Your task to perform on an android device: turn notification dots on Image 0: 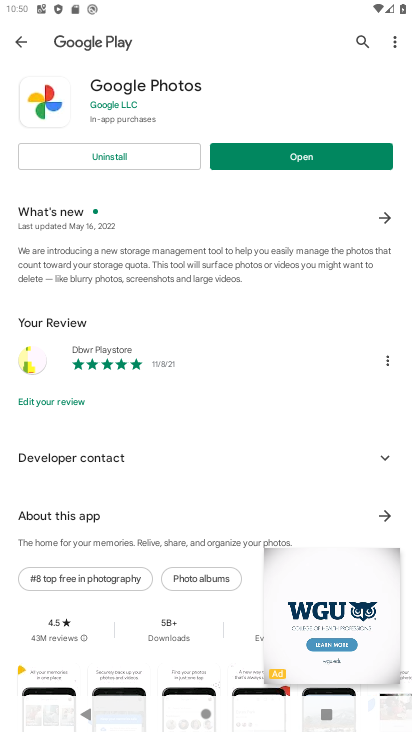
Step 0: press home button
Your task to perform on an android device: turn notification dots on Image 1: 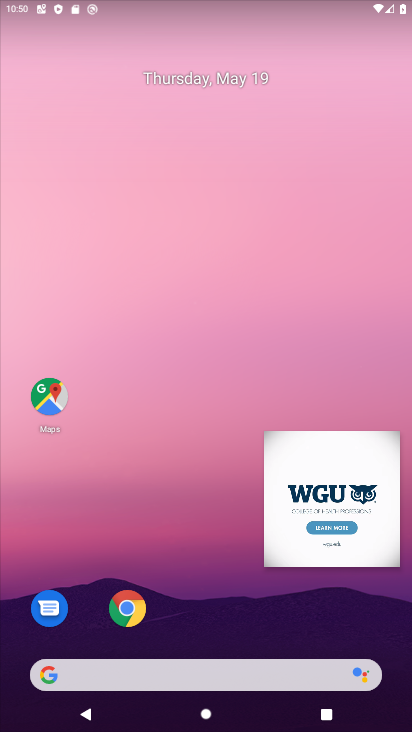
Step 1: click (365, 459)
Your task to perform on an android device: turn notification dots on Image 2: 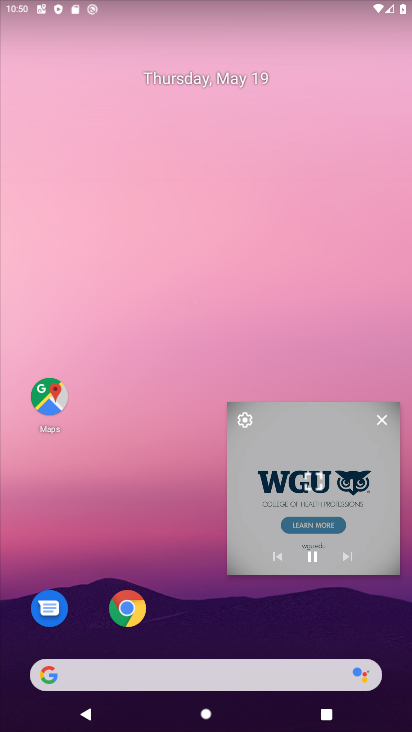
Step 2: click (378, 420)
Your task to perform on an android device: turn notification dots on Image 3: 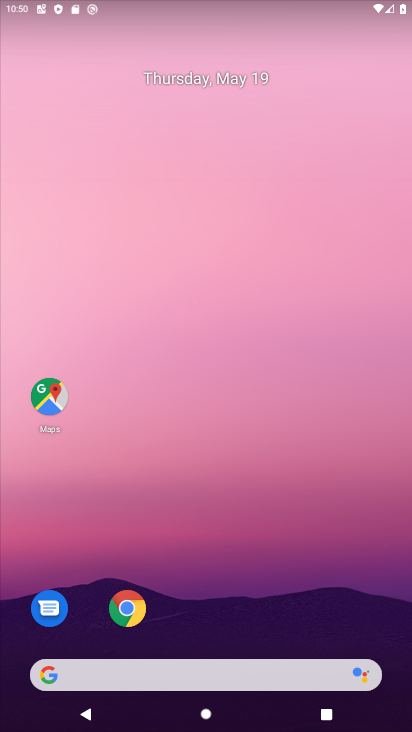
Step 3: drag from (410, 446) to (405, 673)
Your task to perform on an android device: turn notification dots on Image 4: 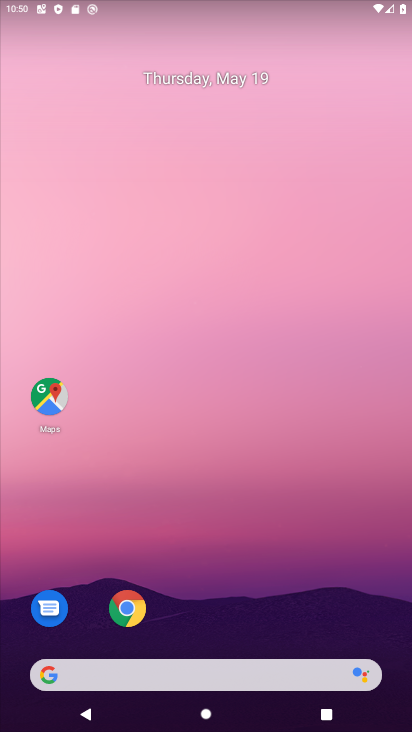
Step 4: drag from (396, 703) to (363, 340)
Your task to perform on an android device: turn notification dots on Image 5: 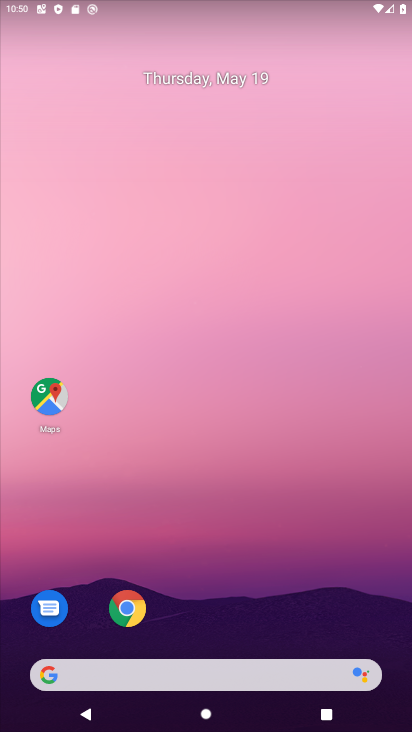
Step 5: drag from (388, 653) to (376, 324)
Your task to perform on an android device: turn notification dots on Image 6: 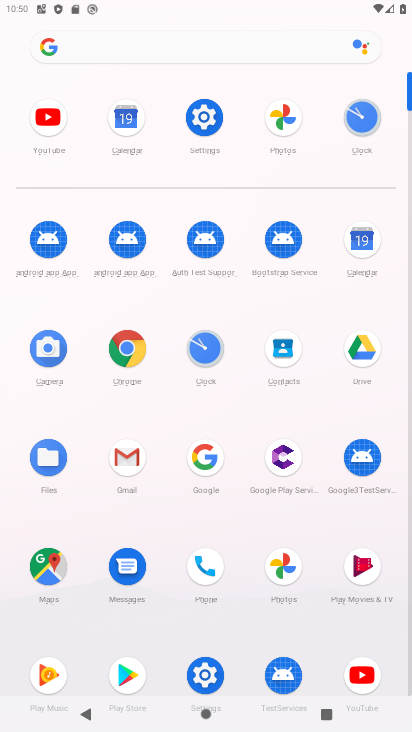
Step 6: click (196, 107)
Your task to perform on an android device: turn notification dots on Image 7: 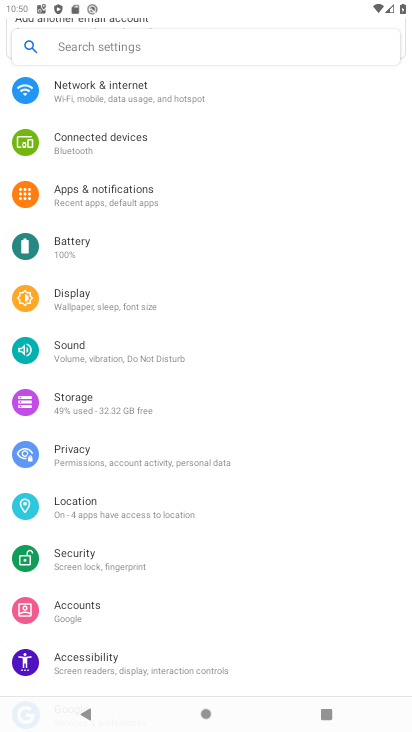
Step 7: click (84, 178)
Your task to perform on an android device: turn notification dots on Image 8: 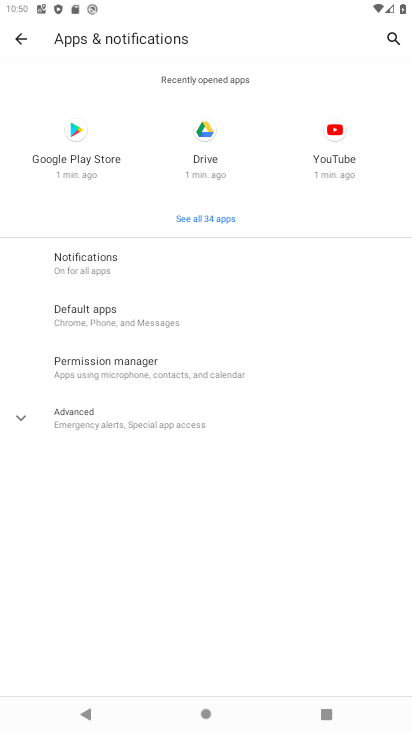
Step 8: click (90, 266)
Your task to perform on an android device: turn notification dots on Image 9: 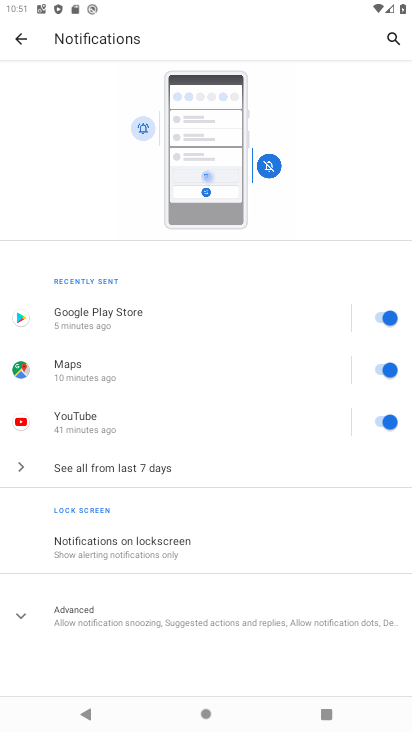
Step 9: drag from (261, 562) to (269, 254)
Your task to perform on an android device: turn notification dots on Image 10: 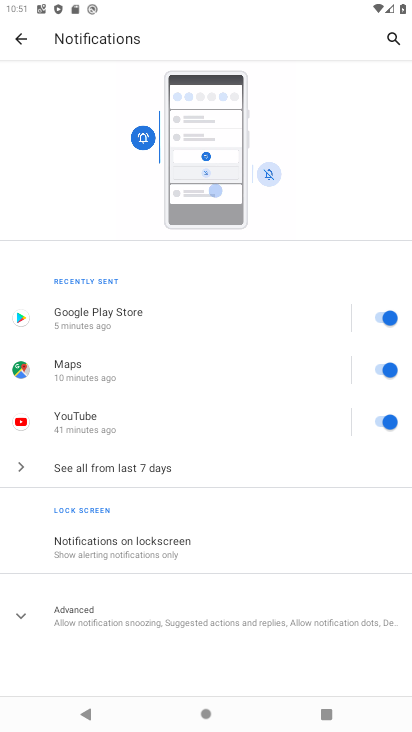
Step 10: click (24, 618)
Your task to perform on an android device: turn notification dots on Image 11: 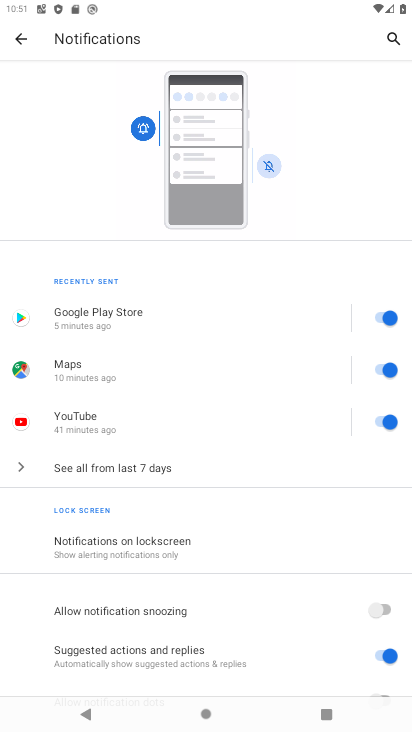
Step 11: drag from (240, 615) to (257, 414)
Your task to perform on an android device: turn notification dots on Image 12: 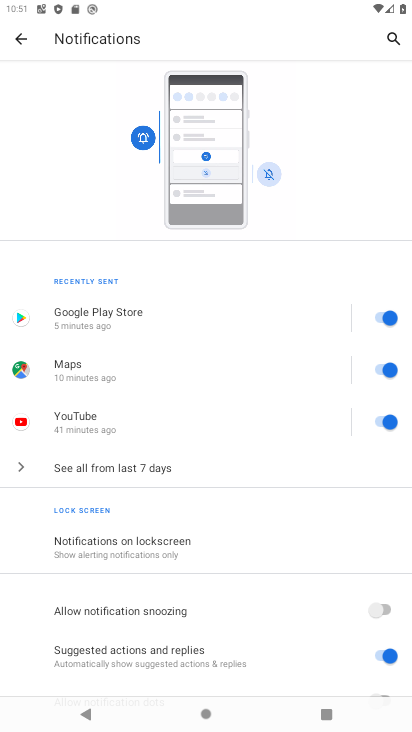
Step 12: drag from (264, 596) to (280, 436)
Your task to perform on an android device: turn notification dots on Image 13: 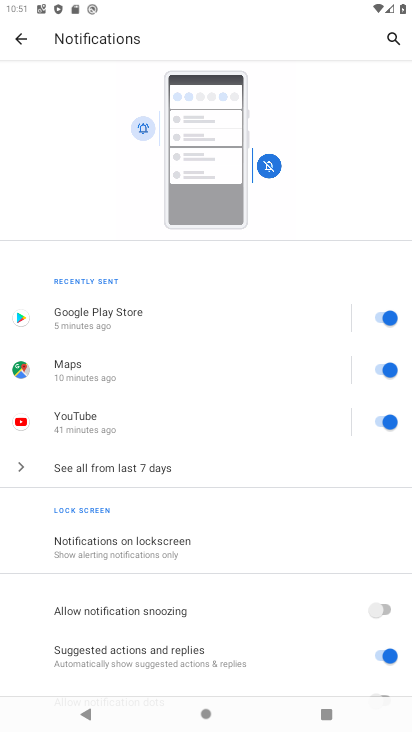
Step 13: drag from (283, 659) to (297, 410)
Your task to perform on an android device: turn notification dots on Image 14: 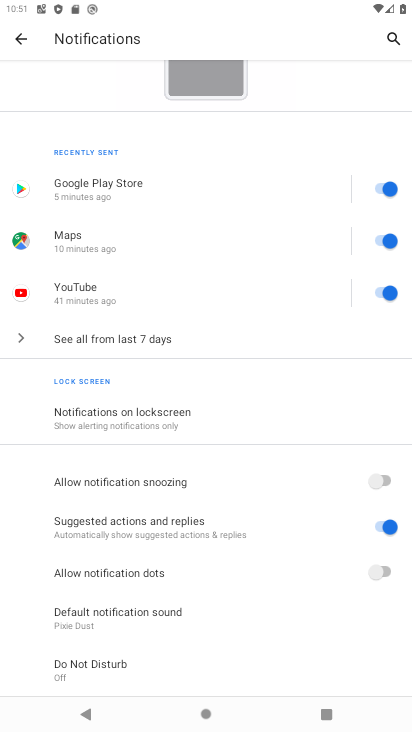
Step 14: click (380, 563)
Your task to perform on an android device: turn notification dots on Image 15: 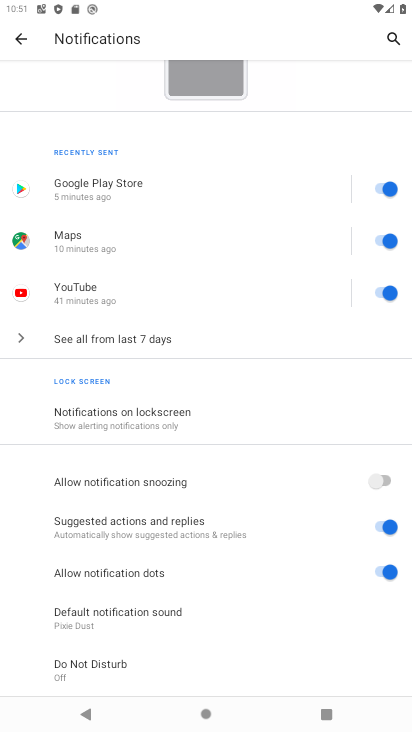
Step 15: task complete